Your task to perform on an android device: change the clock display to analog Image 0: 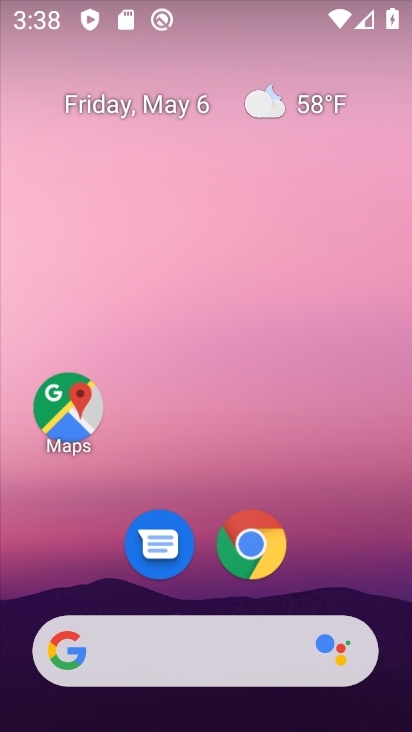
Step 0: drag from (150, 599) to (240, 122)
Your task to perform on an android device: change the clock display to analog Image 1: 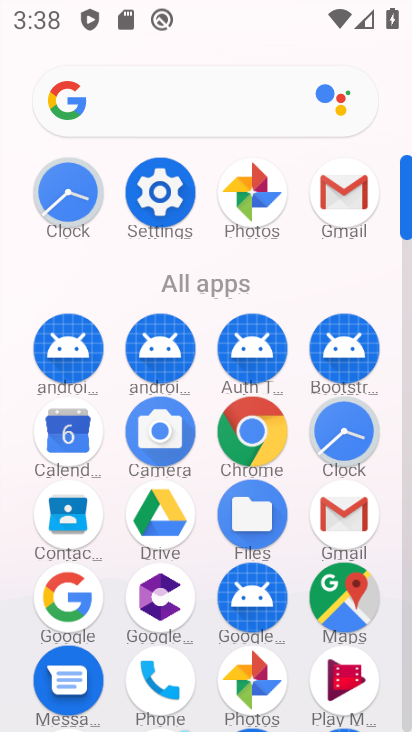
Step 1: click (332, 434)
Your task to perform on an android device: change the clock display to analog Image 2: 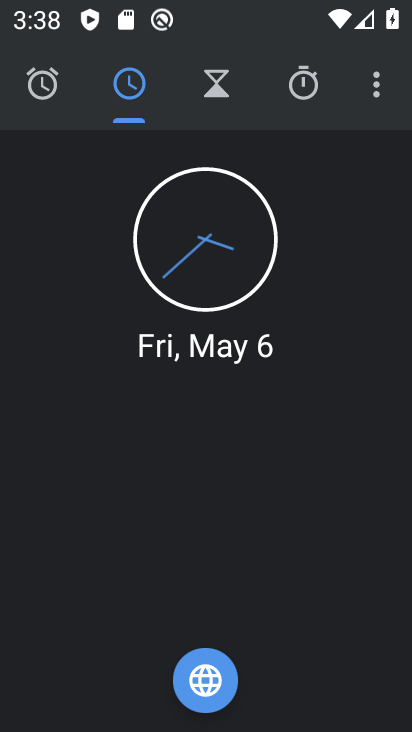
Step 2: click (378, 79)
Your task to perform on an android device: change the clock display to analog Image 3: 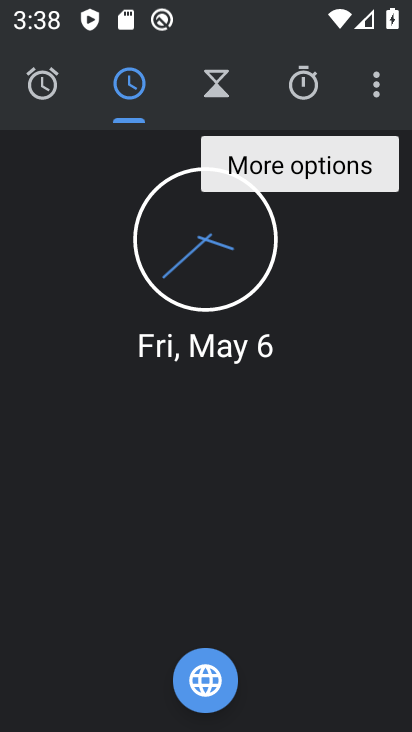
Step 3: click (368, 92)
Your task to perform on an android device: change the clock display to analog Image 4: 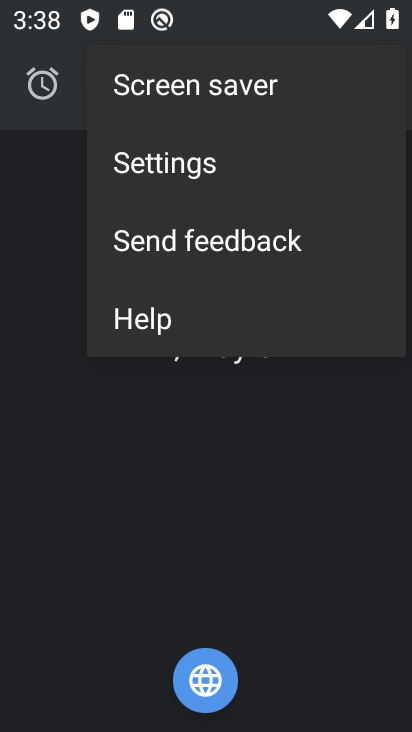
Step 4: click (361, 156)
Your task to perform on an android device: change the clock display to analog Image 5: 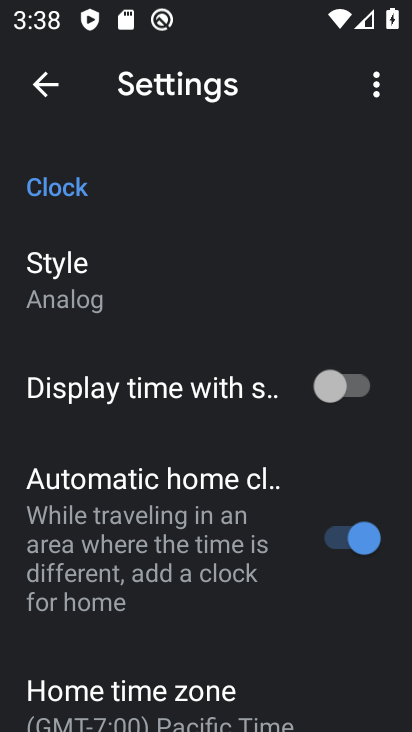
Step 5: task complete